Your task to perform on an android device: refresh tabs in the chrome app Image 0: 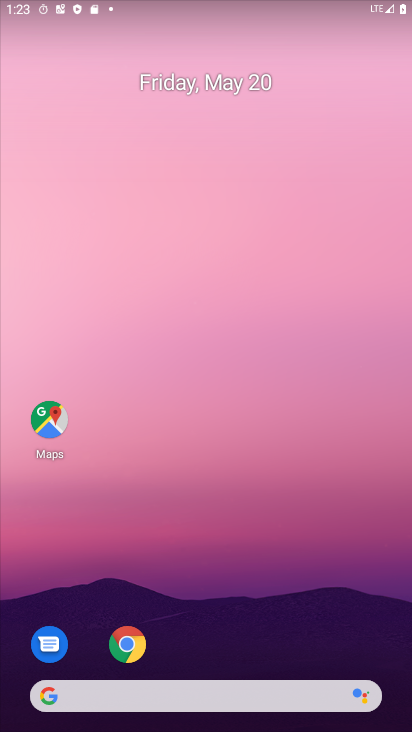
Step 0: drag from (226, 624) to (241, 107)
Your task to perform on an android device: refresh tabs in the chrome app Image 1: 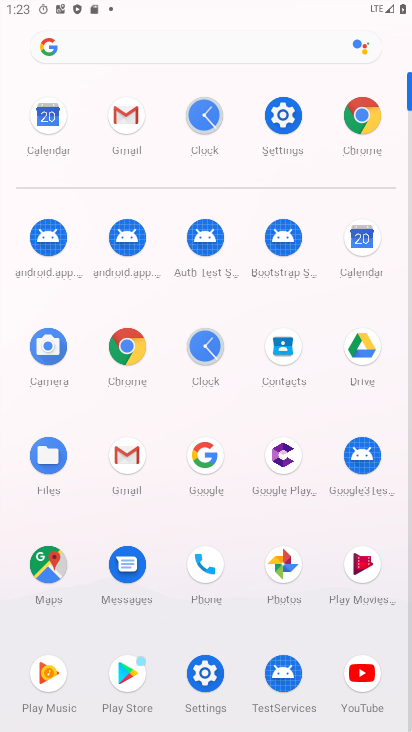
Step 1: click (369, 123)
Your task to perform on an android device: refresh tabs in the chrome app Image 2: 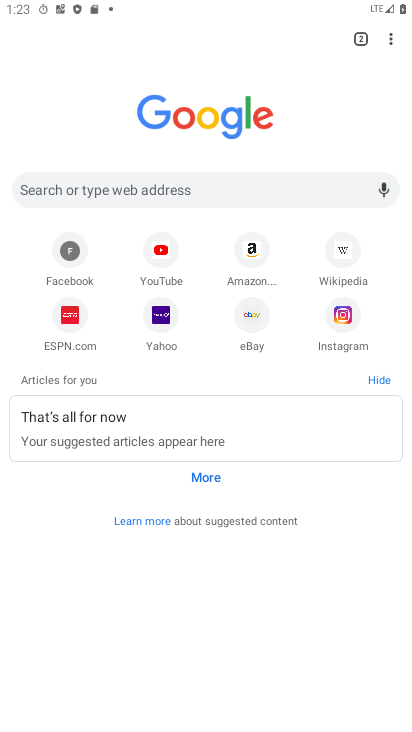
Step 2: click (395, 44)
Your task to perform on an android device: refresh tabs in the chrome app Image 3: 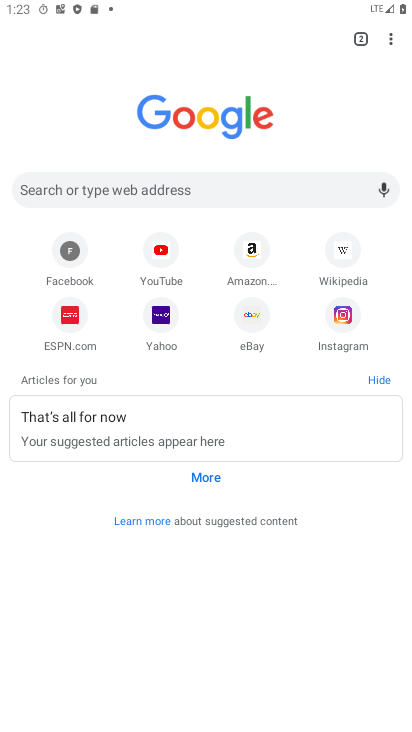
Step 3: task complete